Your task to perform on an android device: Go to CNN.com Image 0: 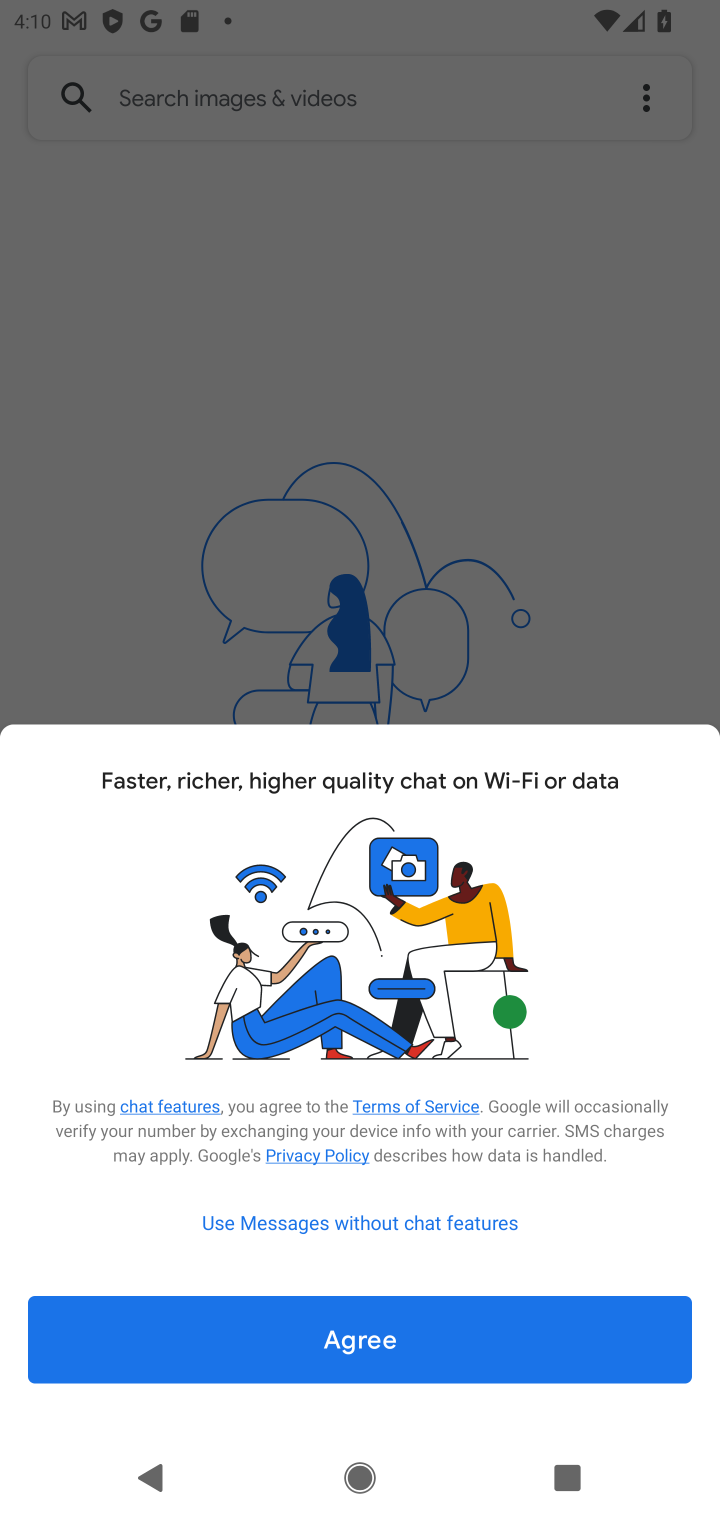
Step 0: press home button
Your task to perform on an android device: Go to CNN.com Image 1: 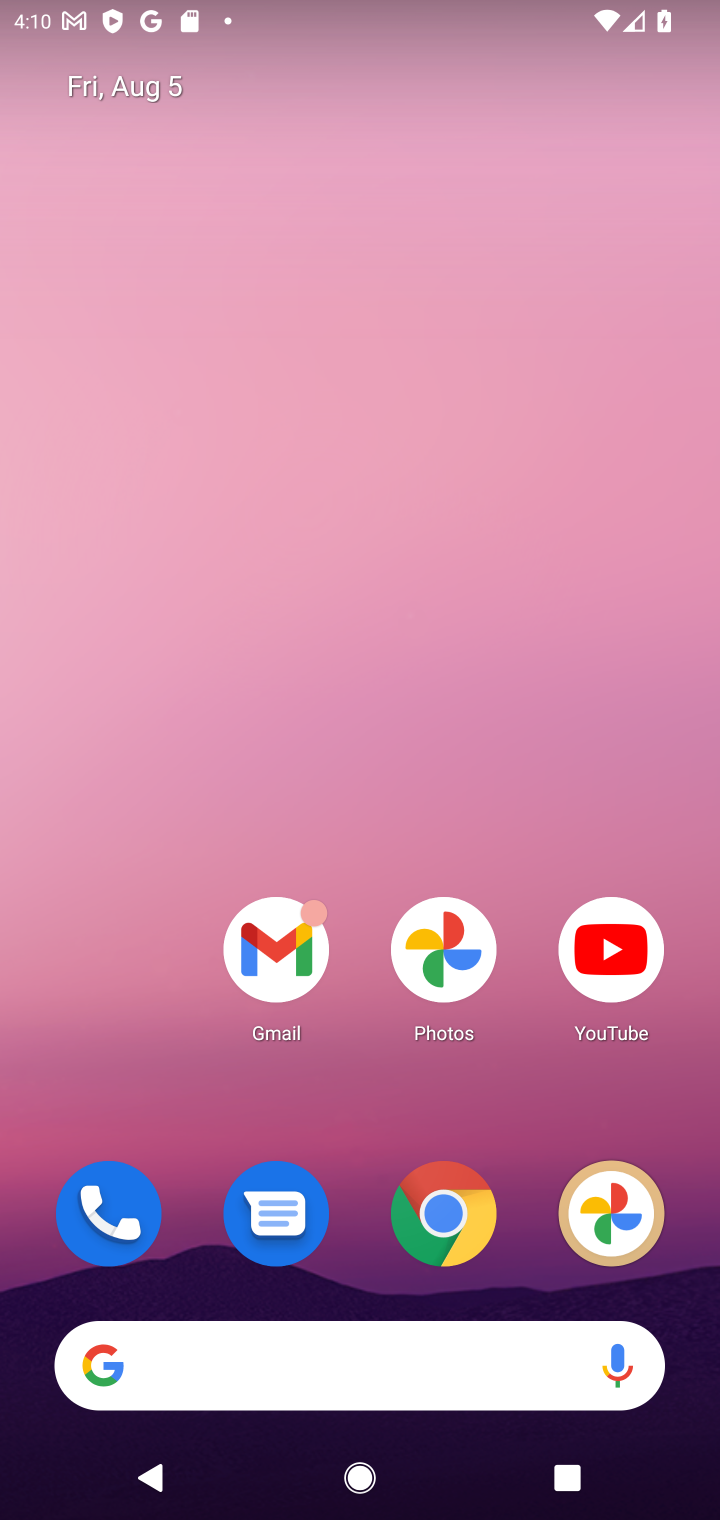
Step 1: click (438, 1253)
Your task to perform on an android device: Go to CNN.com Image 2: 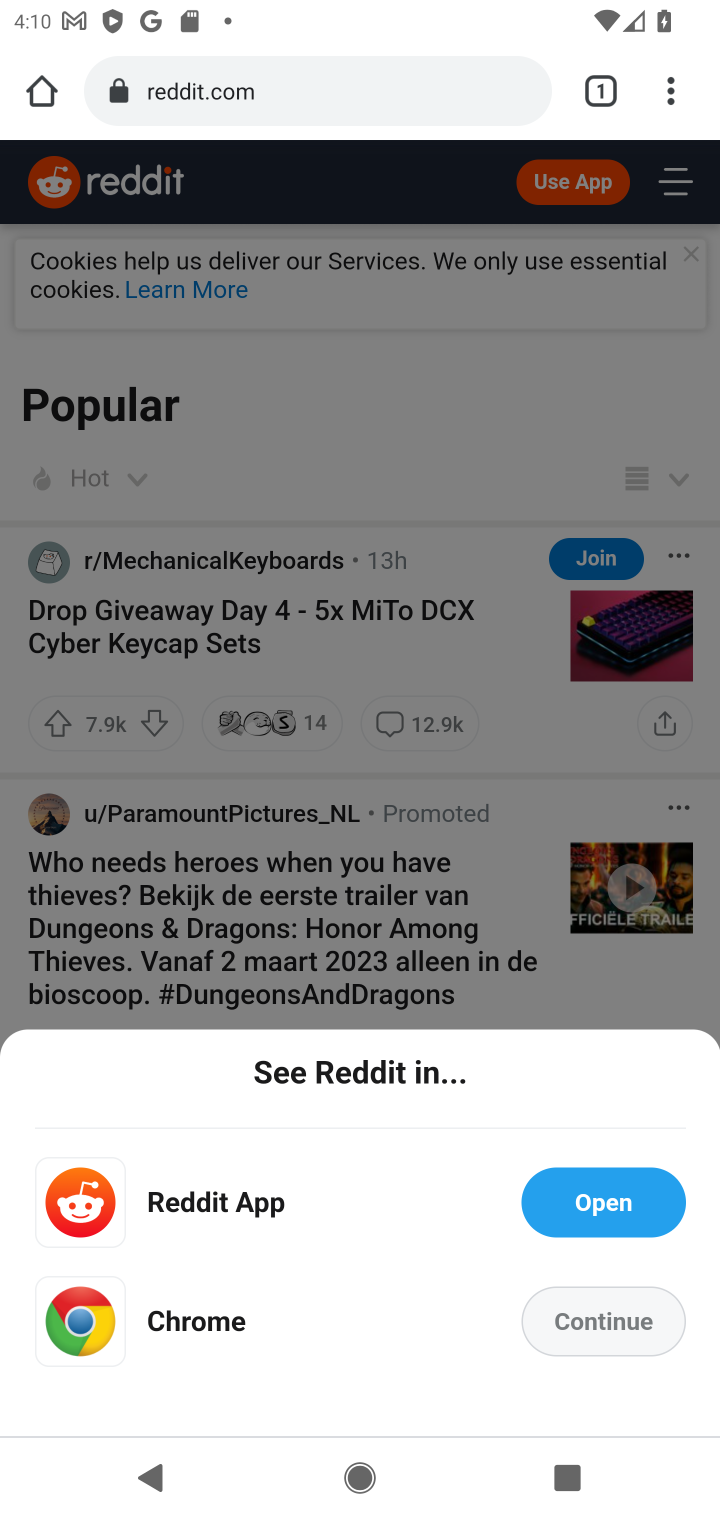
Step 2: click (396, 74)
Your task to perform on an android device: Go to CNN.com Image 3: 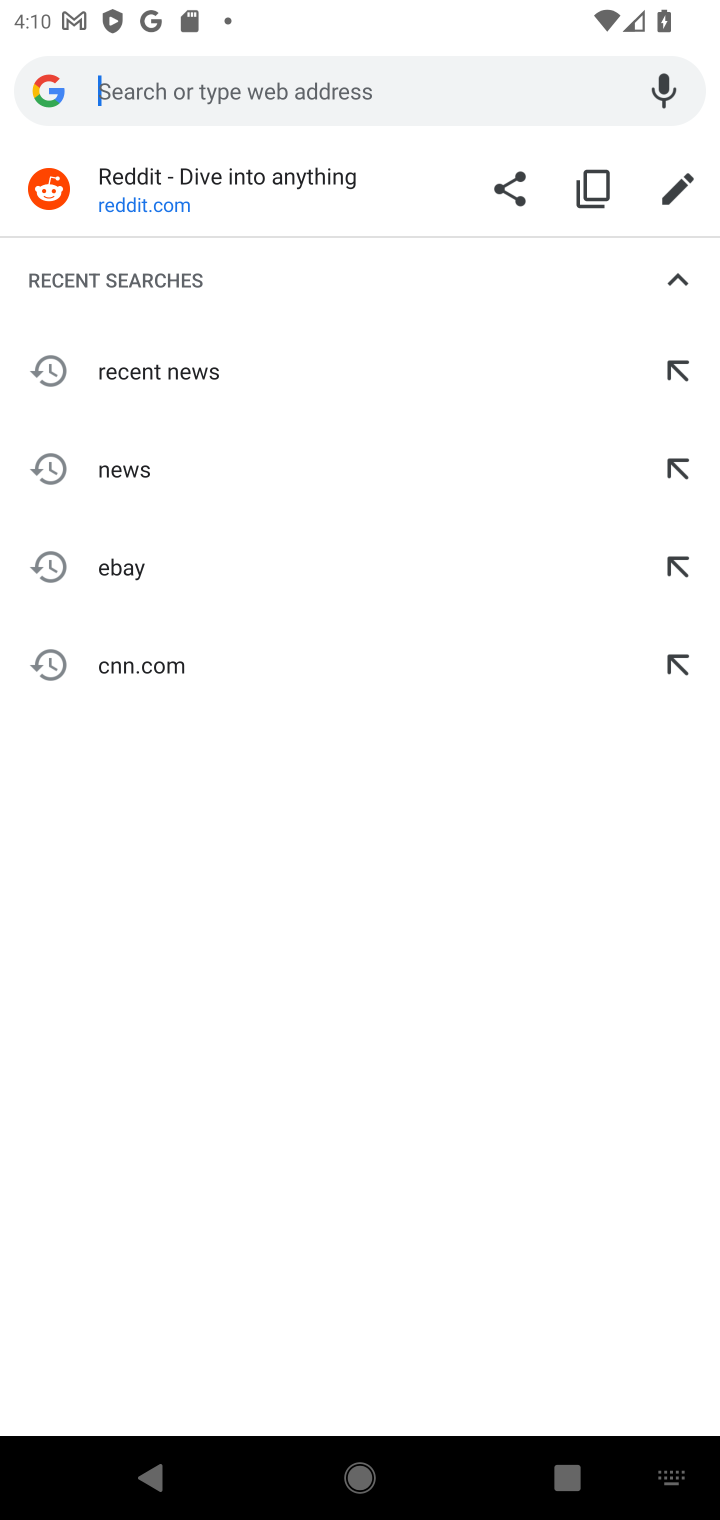
Step 3: type "cnn.com"
Your task to perform on an android device: Go to CNN.com Image 4: 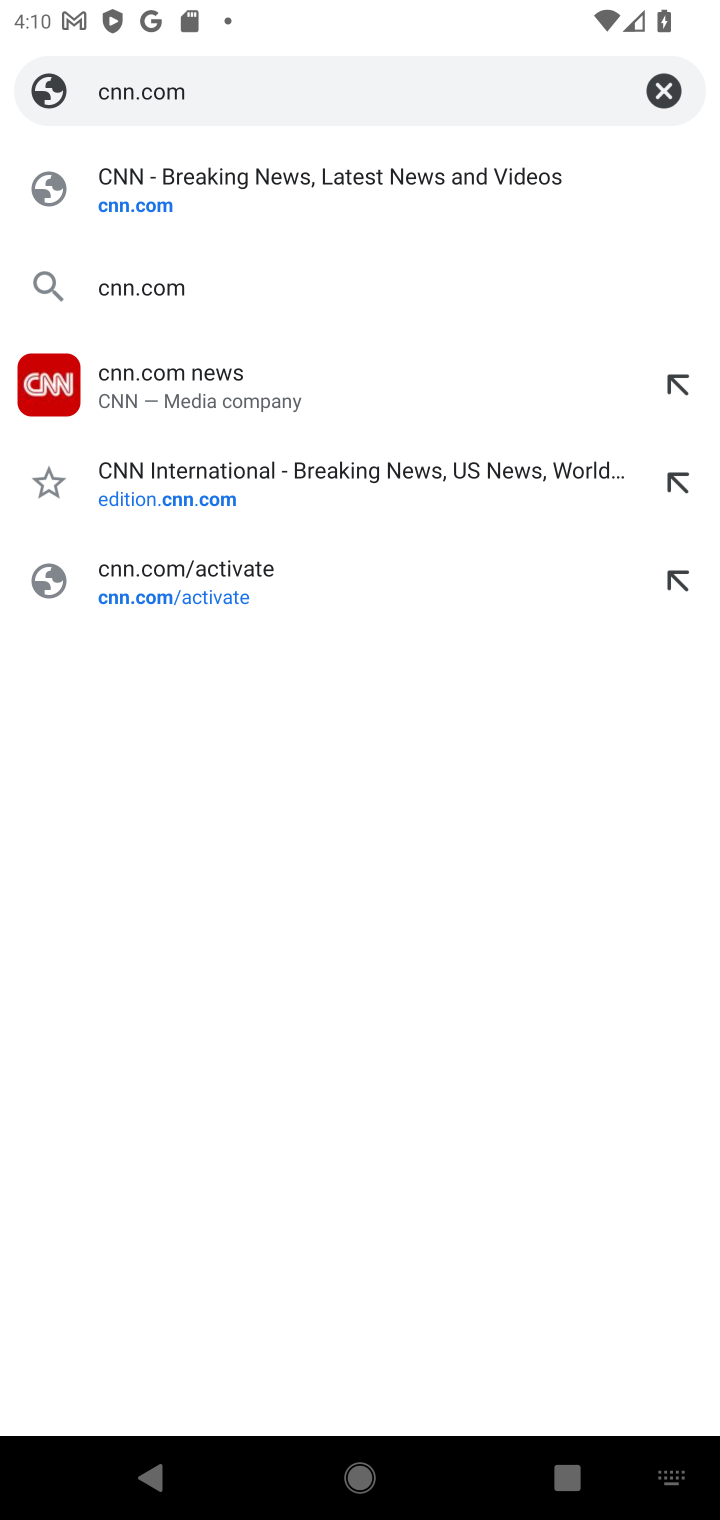
Step 4: click (192, 210)
Your task to perform on an android device: Go to CNN.com Image 5: 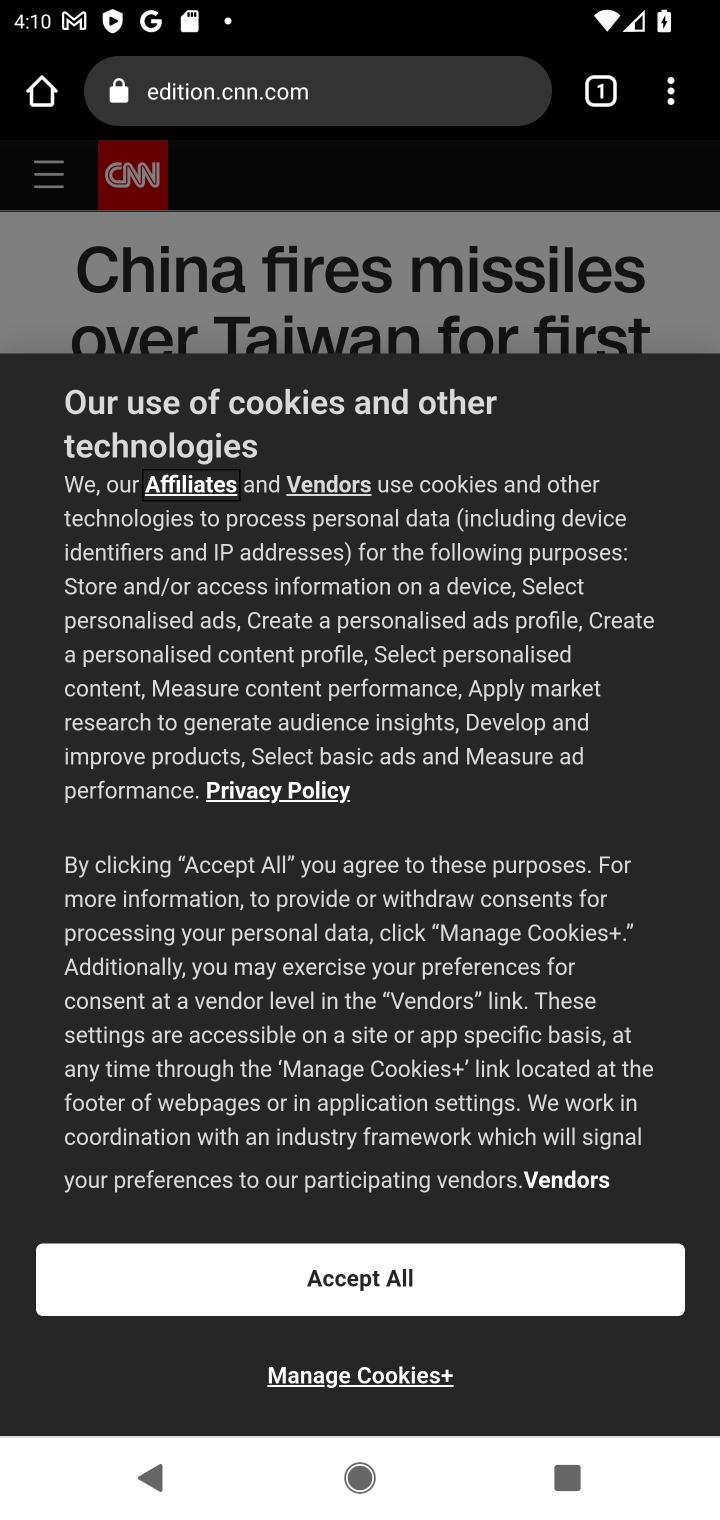
Step 5: task complete